Your task to perform on an android device: Clear all items from cart on walmart.com. Search for "logitech g910" on walmart.com, select the first entry, add it to the cart, then select checkout. Image 0: 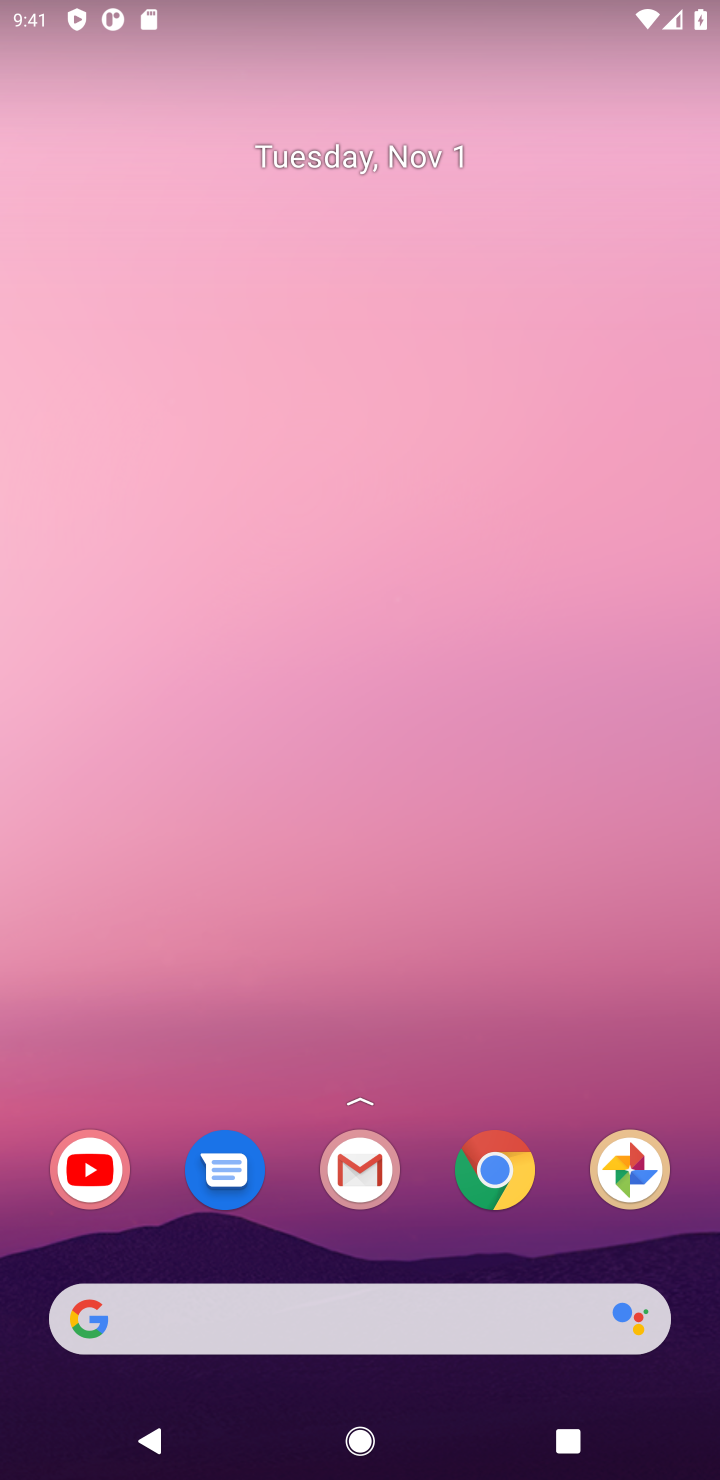
Step 0: drag from (430, 1094) to (450, 21)
Your task to perform on an android device: Clear all items from cart on walmart.com. Search for "logitech g910" on walmart.com, select the first entry, add it to the cart, then select checkout. Image 1: 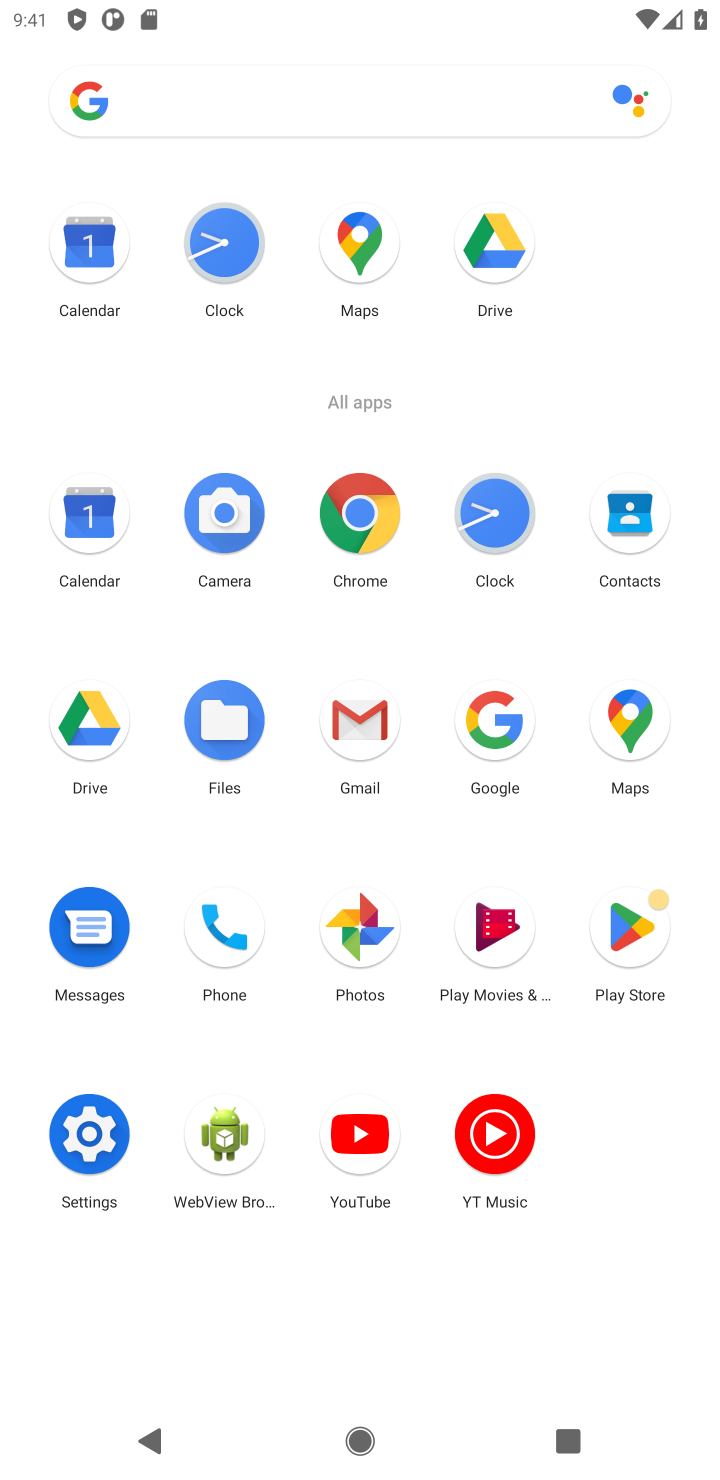
Step 1: click (353, 503)
Your task to perform on an android device: Clear all items from cart on walmart.com. Search for "logitech g910" on walmart.com, select the first entry, add it to the cart, then select checkout. Image 2: 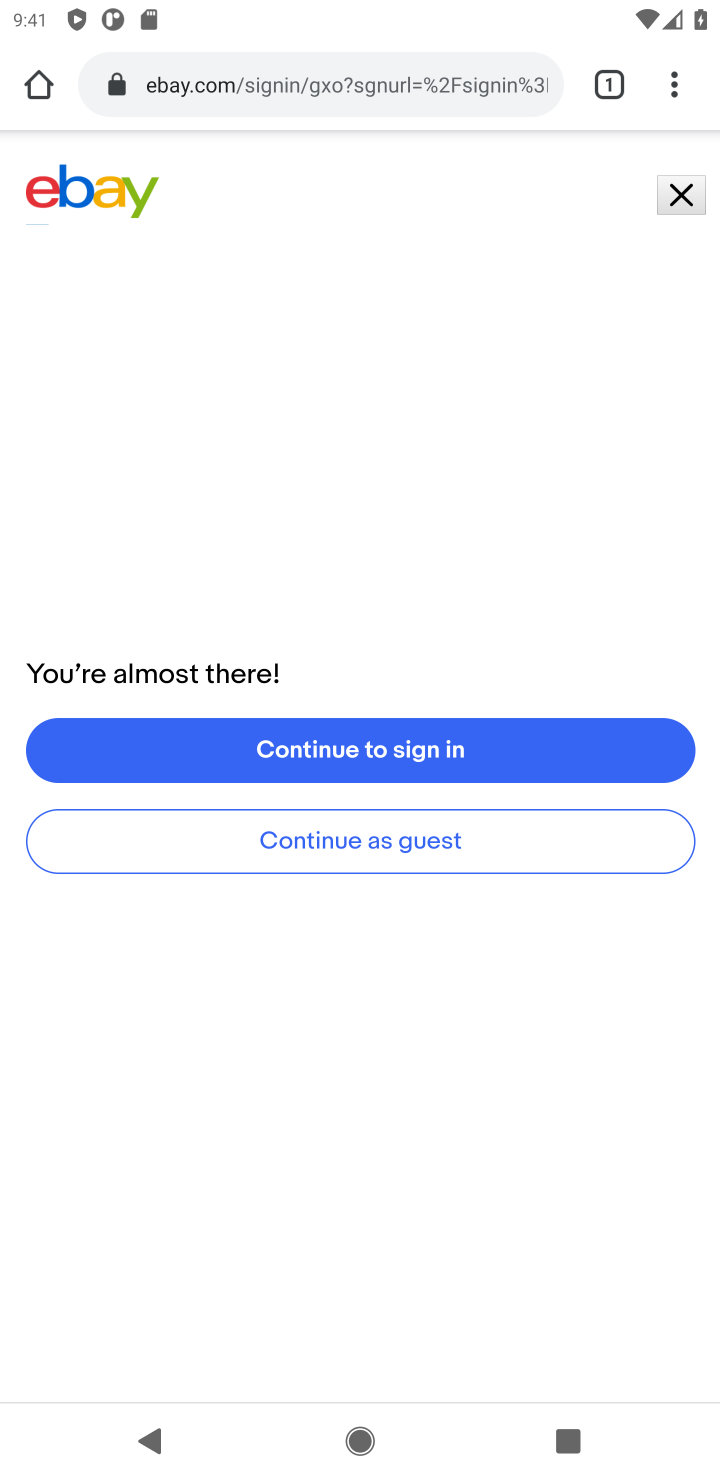
Step 2: click (252, 78)
Your task to perform on an android device: Clear all items from cart on walmart.com. Search for "logitech g910" on walmart.com, select the first entry, add it to the cart, then select checkout. Image 3: 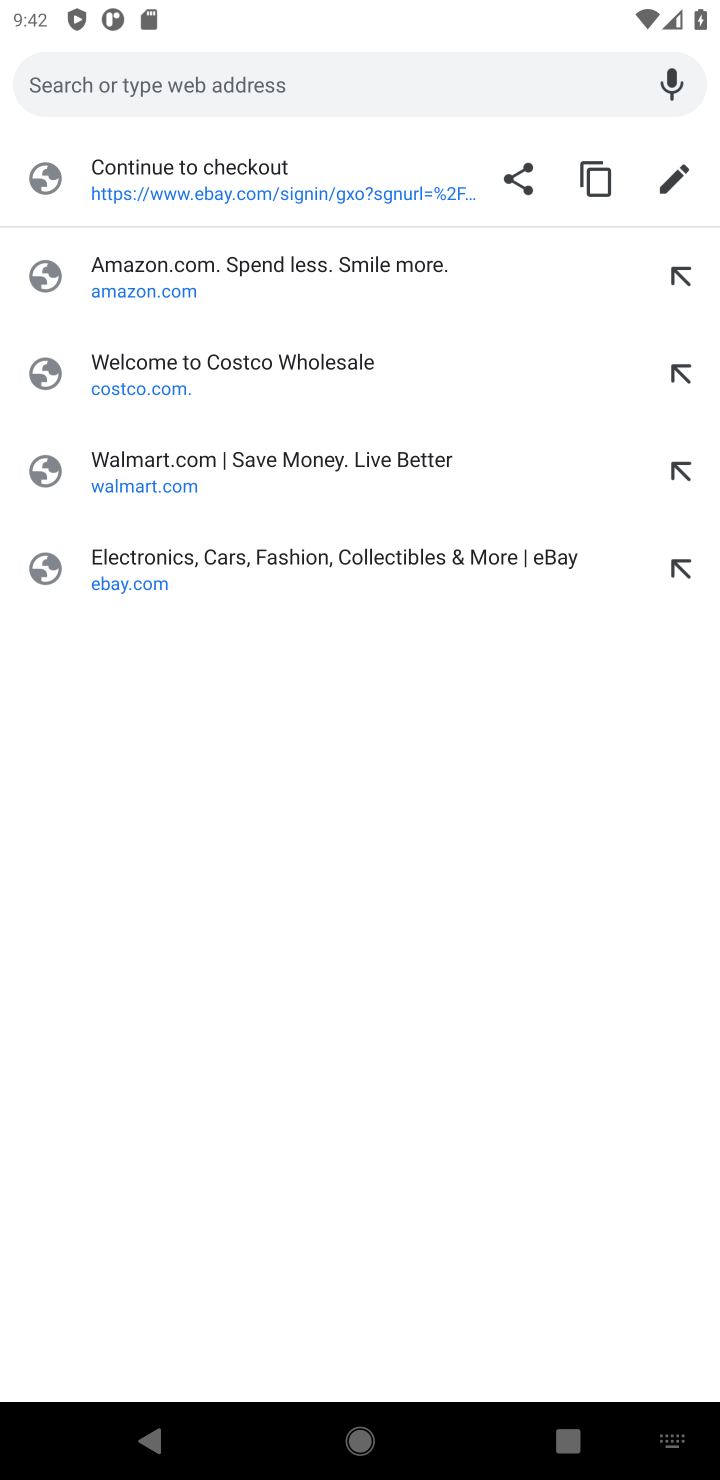
Step 3: type "walmart"
Your task to perform on an android device: Clear all items from cart on walmart.com. Search for "logitech g910" on walmart.com, select the first entry, add it to the cart, then select checkout. Image 4: 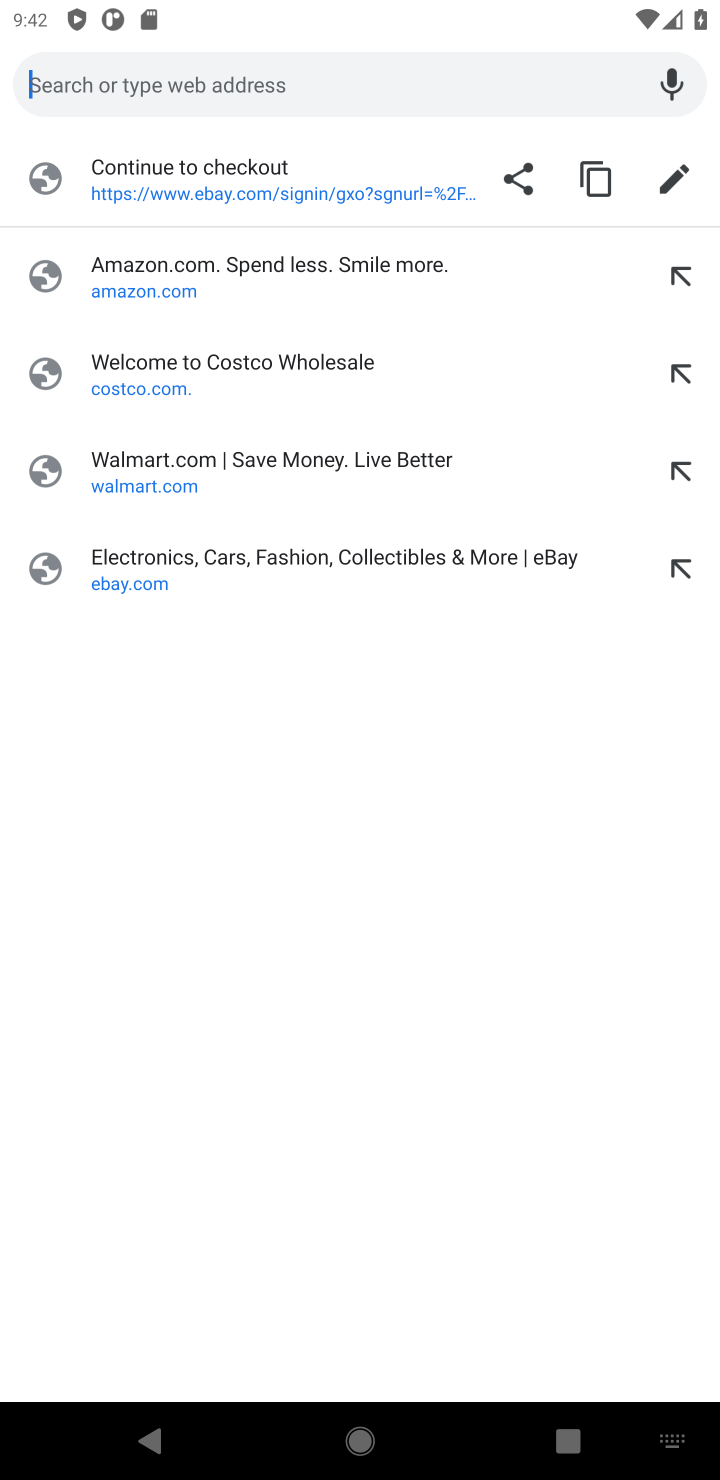
Step 4: click (134, 77)
Your task to perform on an android device: Clear all items from cart on walmart.com. Search for "logitech g910" on walmart.com, select the first entry, add it to the cart, then select checkout. Image 5: 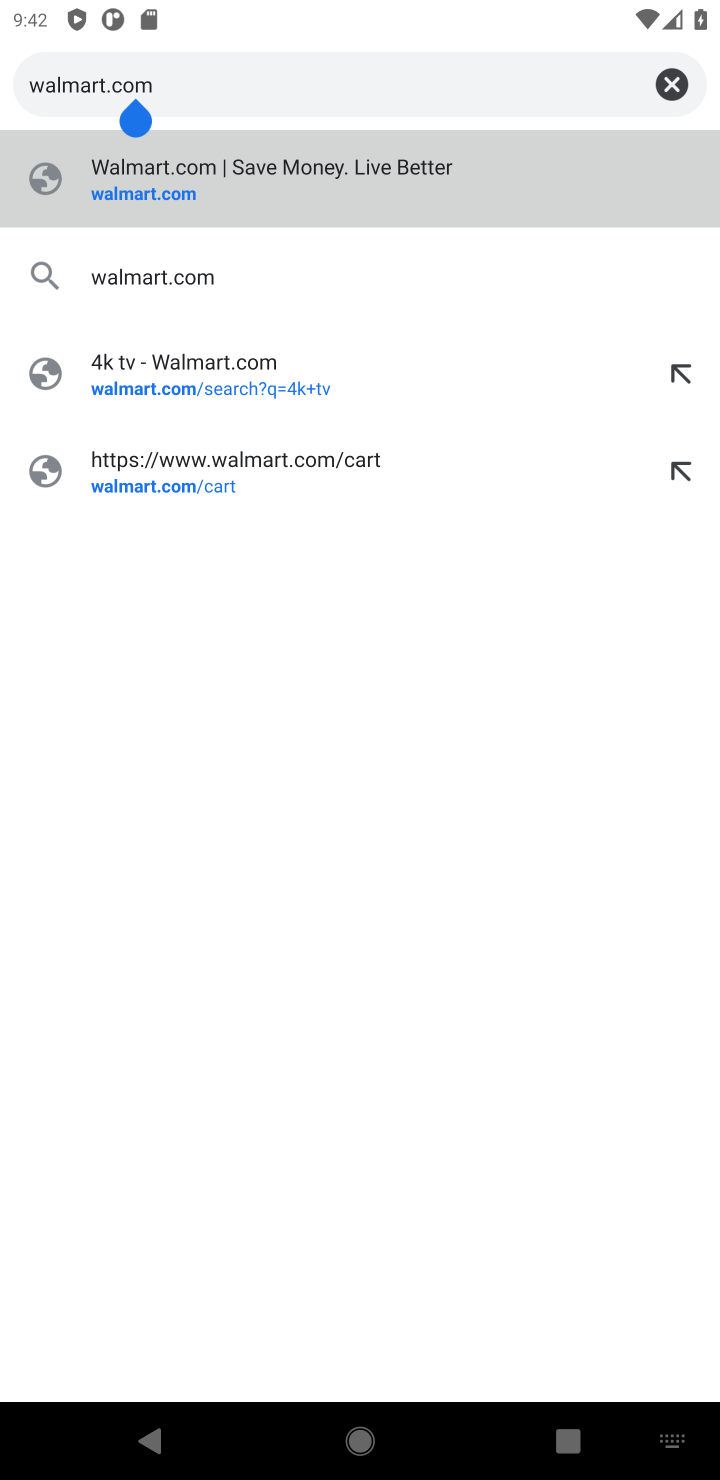
Step 5: click (222, 190)
Your task to perform on an android device: Clear all items from cart on walmart.com. Search for "logitech g910" on walmart.com, select the first entry, add it to the cart, then select checkout. Image 6: 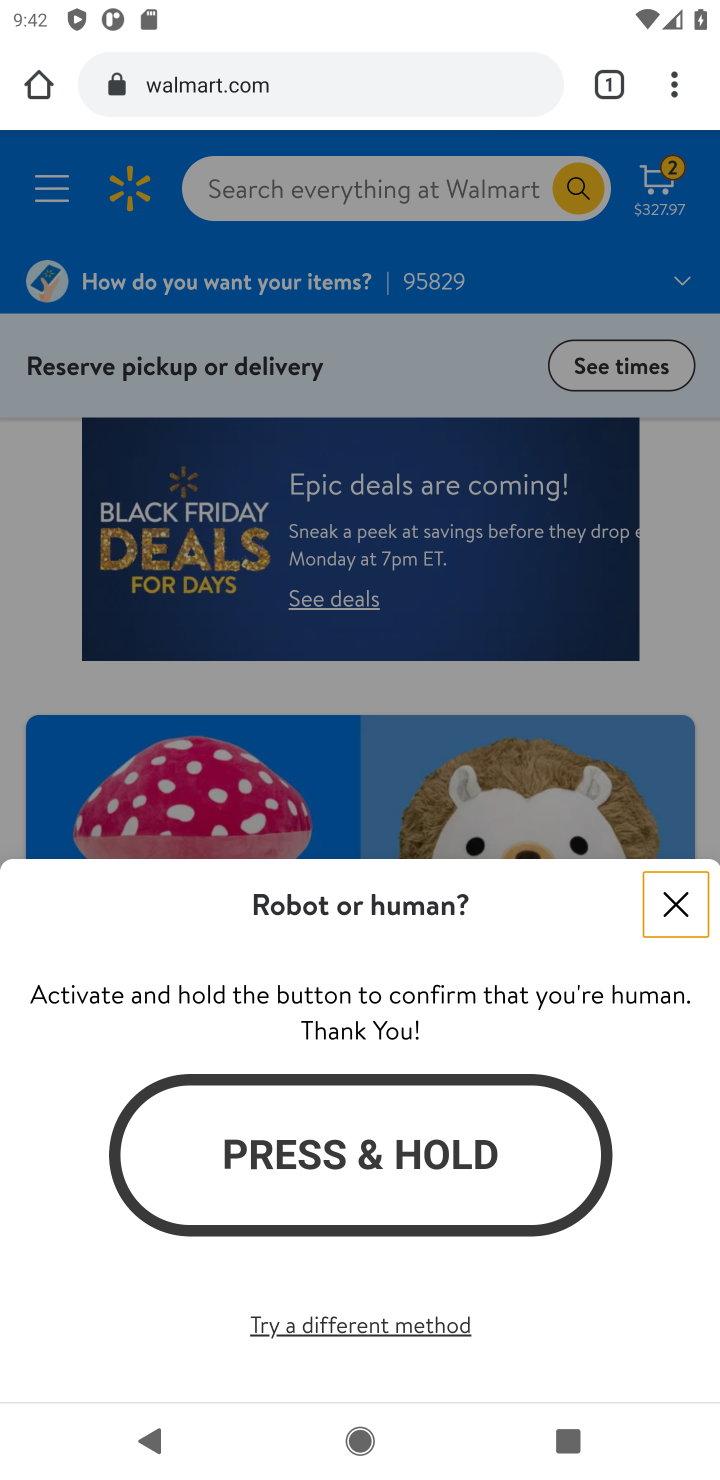
Step 6: click (294, 171)
Your task to perform on an android device: Clear all items from cart on walmart.com. Search for "logitech g910" on walmart.com, select the first entry, add it to the cart, then select checkout. Image 7: 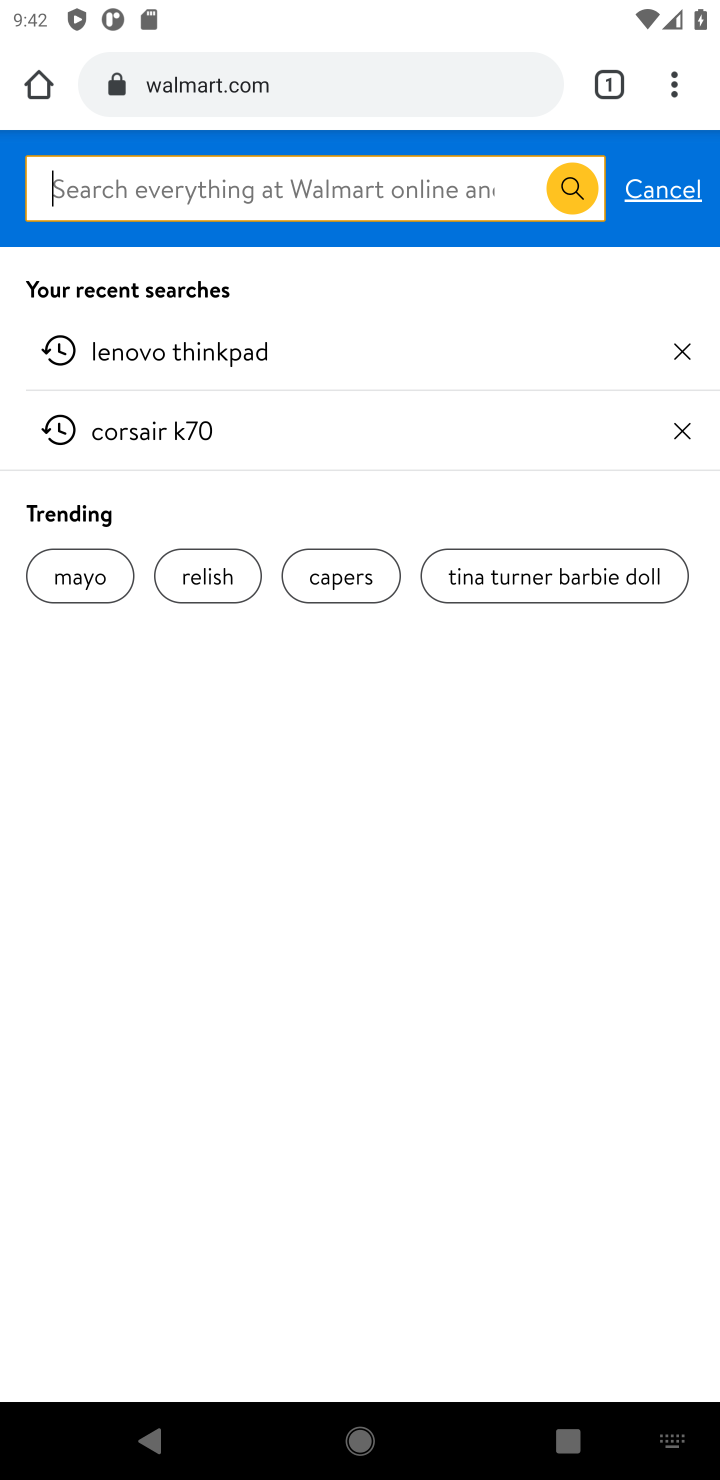
Step 7: type "logitech g910"
Your task to perform on an android device: Clear all items from cart on walmart.com. Search for "logitech g910" on walmart.com, select the first entry, add it to the cart, then select checkout. Image 8: 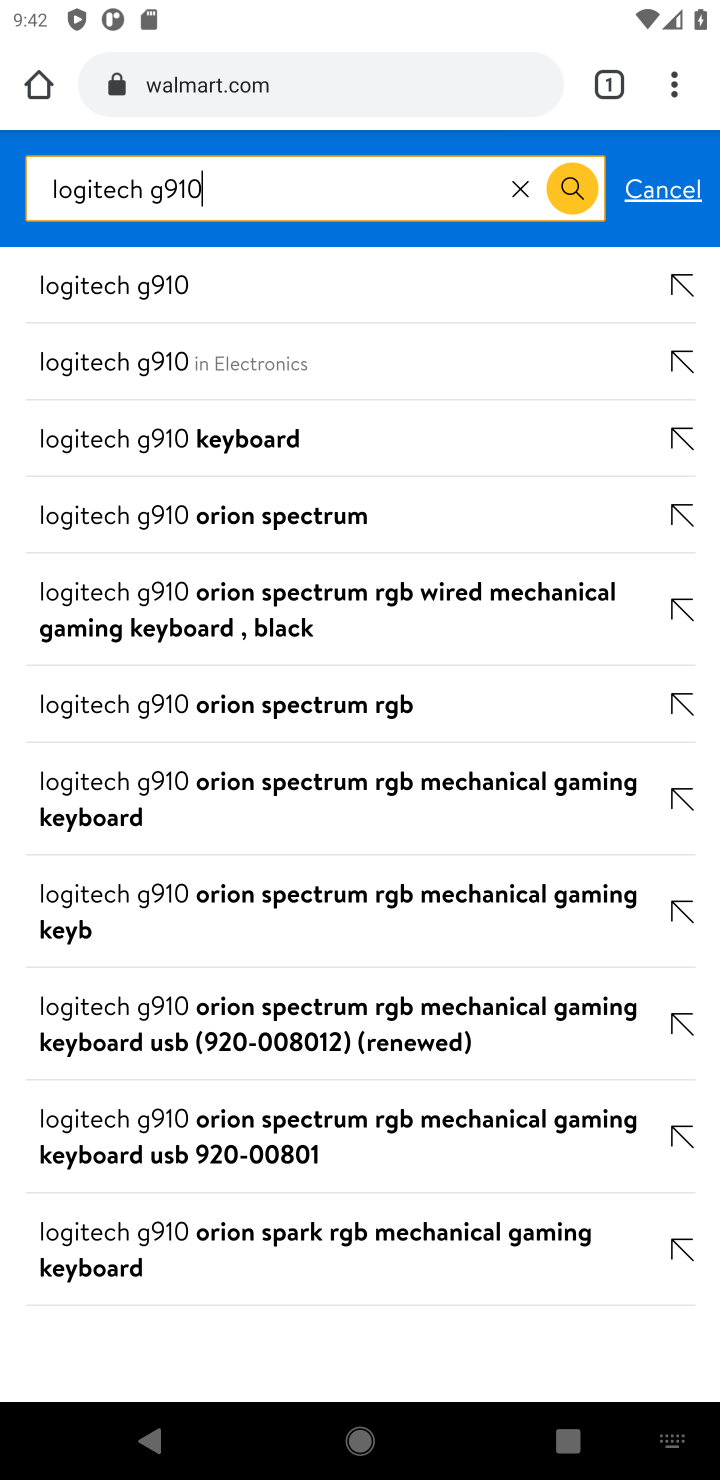
Step 8: click (182, 354)
Your task to perform on an android device: Clear all items from cart on walmart.com. Search for "logitech g910" on walmart.com, select the first entry, add it to the cart, then select checkout. Image 9: 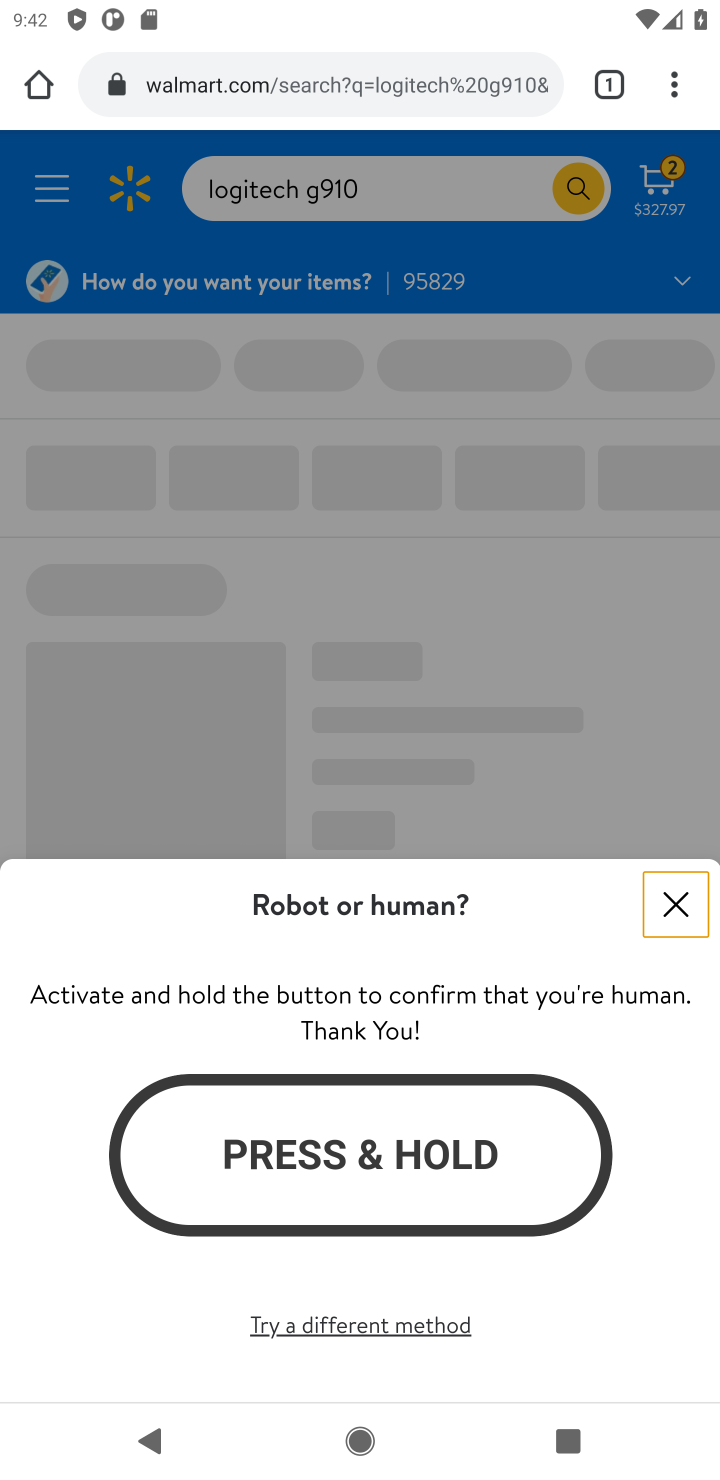
Step 9: click (668, 900)
Your task to perform on an android device: Clear all items from cart on walmart.com. Search for "logitech g910" on walmart.com, select the first entry, add it to the cart, then select checkout. Image 10: 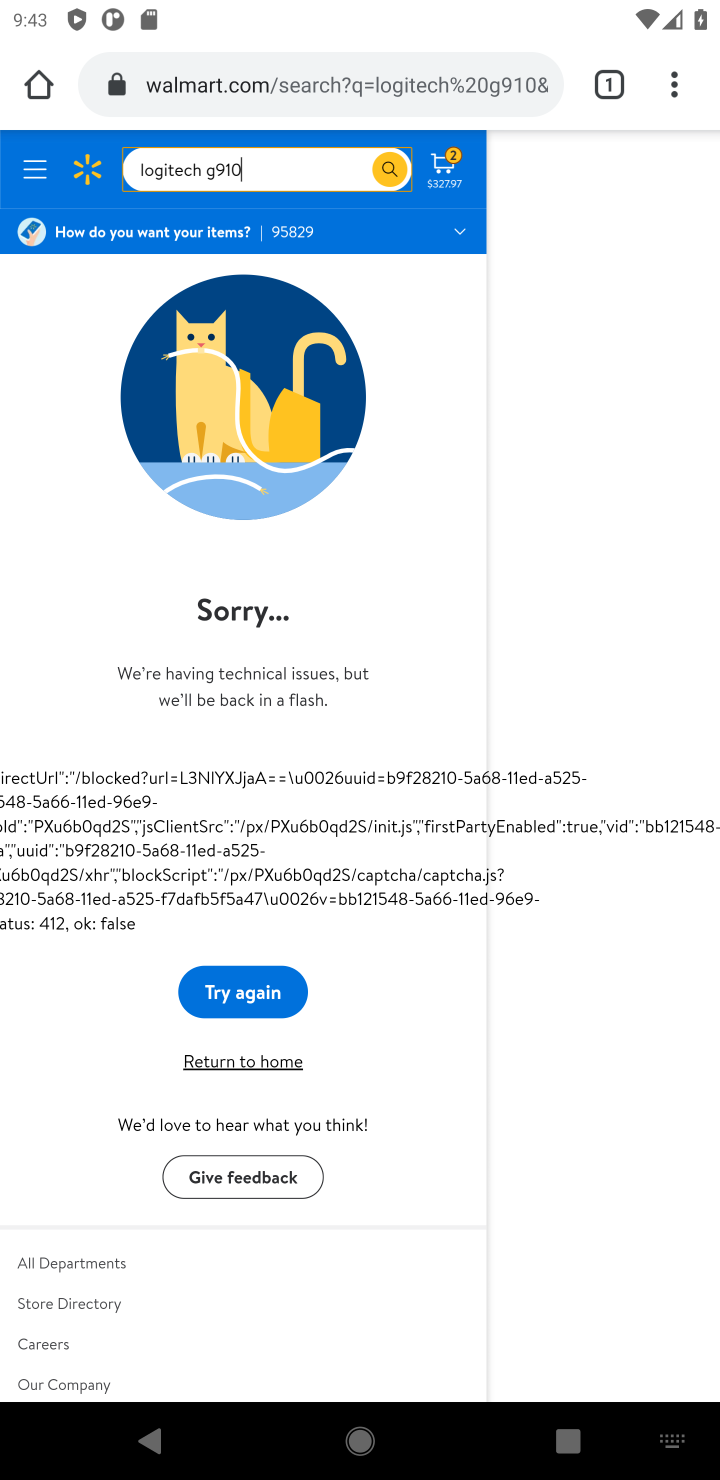
Step 10: task complete